Your task to perform on an android device: Open calendar and show me the second week of next month Image 0: 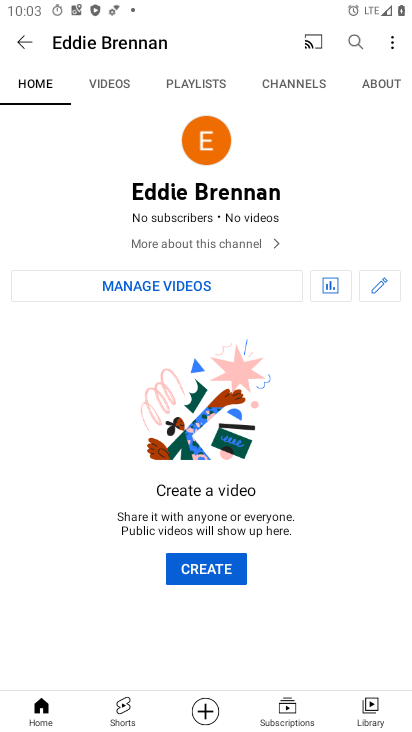
Step 0: press home button
Your task to perform on an android device: Open calendar and show me the second week of next month Image 1: 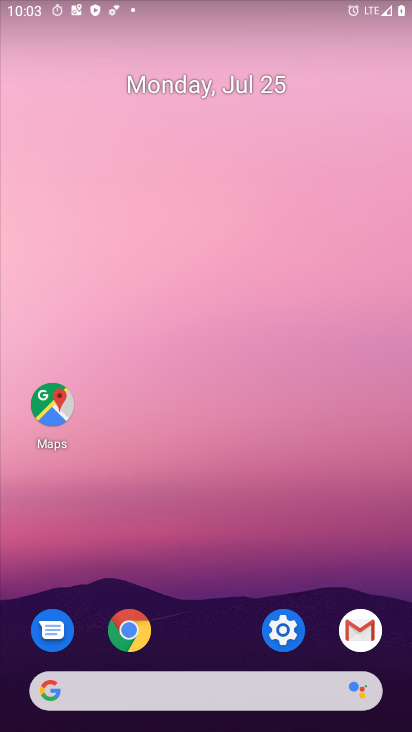
Step 1: drag from (276, 622) to (260, 68)
Your task to perform on an android device: Open calendar and show me the second week of next month Image 2: 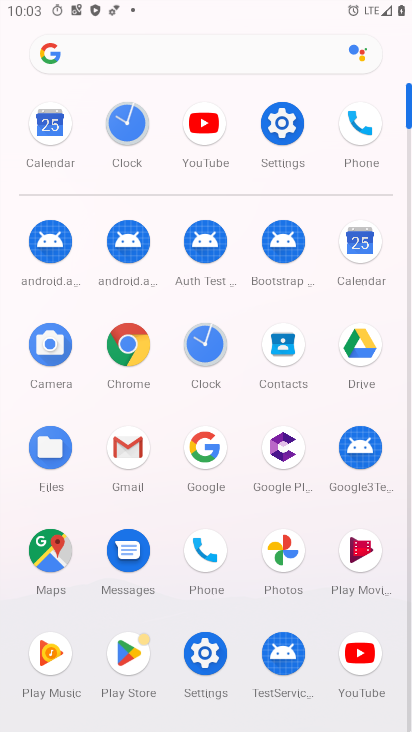
Step 2: click (359, 247)
Your task to perform on an android device: Open calendar and show me the second week of next month Image 3: 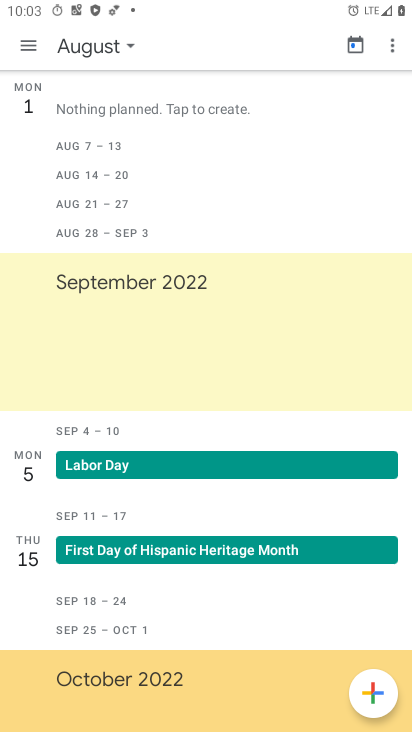
Step 3: click (31, 47)
Your task to perform on an android device: Open calendar and show me the second week of next month Image 4: 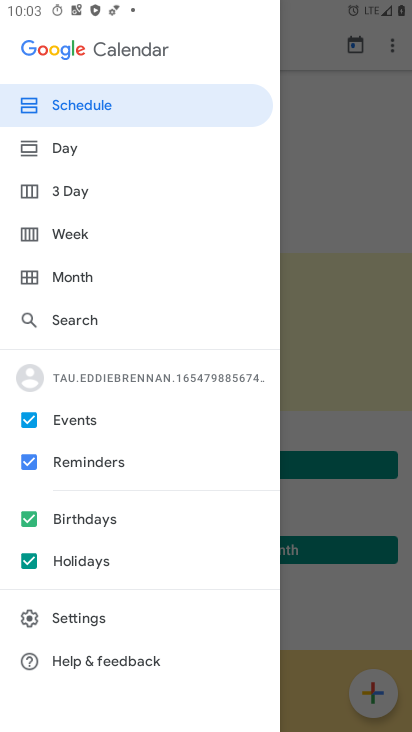
Step 4: click (52, 283)
Your task to perform on an android device: Open calendar and show me the second week of next month Image 5: 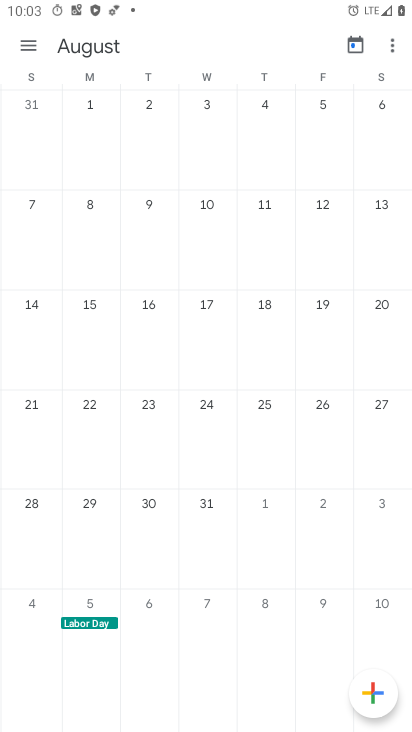
Step 5: click (79, 201)
Your task to perform on an android device: Open calendar and show me the second week of next month Image 6: 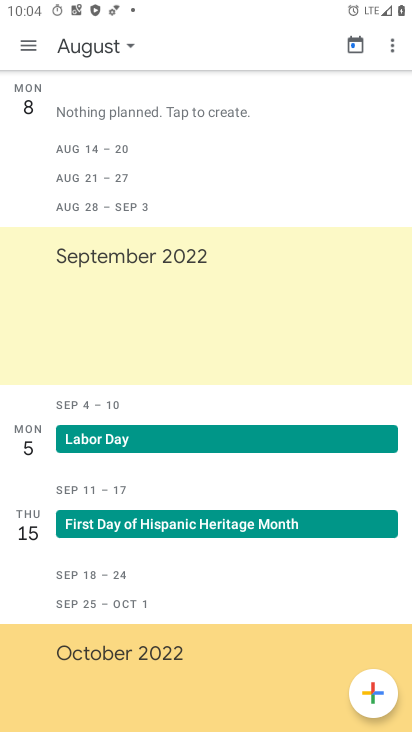
Step 6: task complete